Your task to perform on an android device: change notifications settings Image 0: 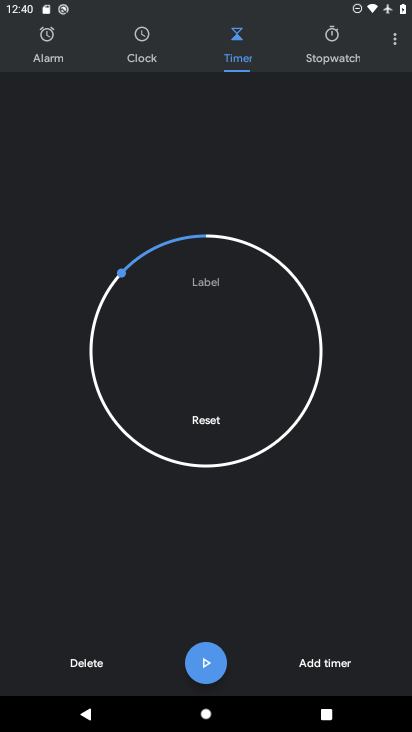
Step 0: press home button
Your task to perform on an android device: change notifications settings Image 1: 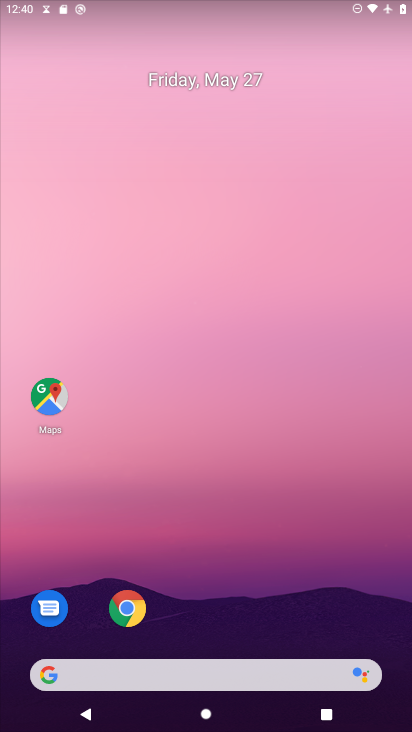
Step 1: drag from (203, 670) to (344, 88)
Your task to perform on an android device: change notifications settings Image 2: 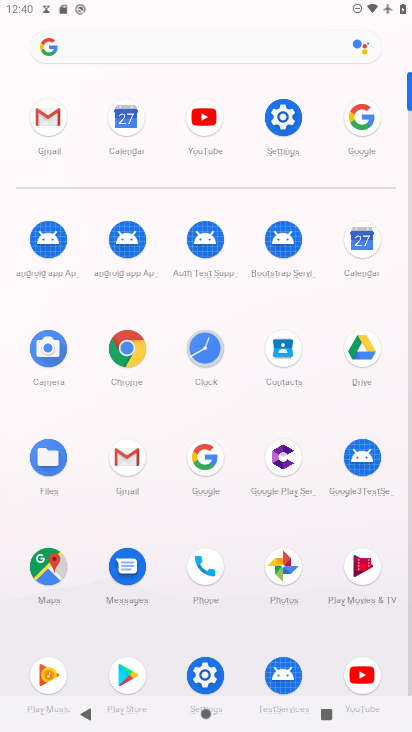
Step 2: click (284, 119)
Your task to perform on an android device: change notifications settings Image 3: 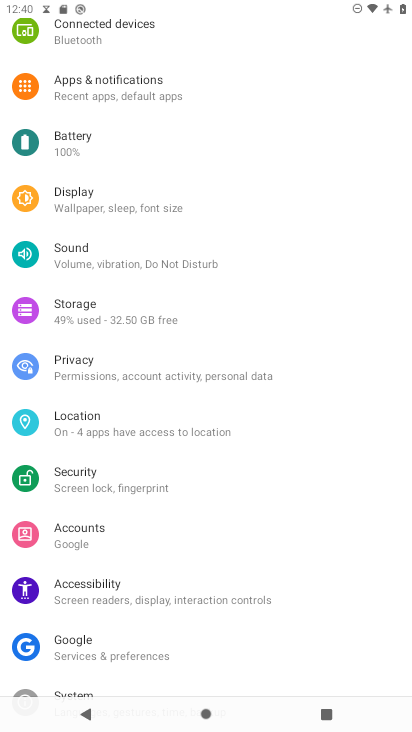
Step 3: click (151, 83)
Your task to perform on an android device: change notifications settings Image 4: 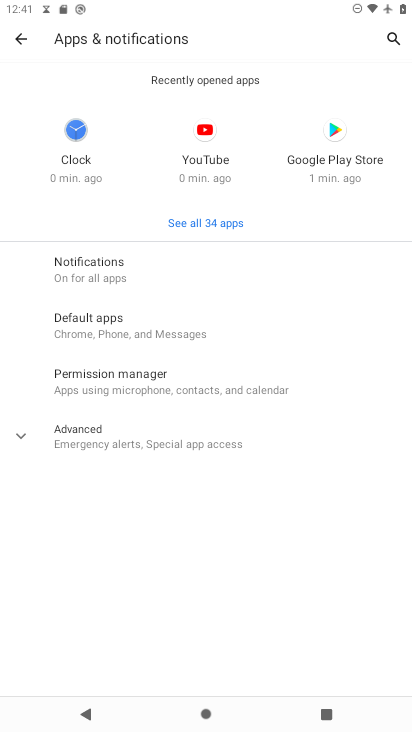
Step 4: click (118, 280)
Your task to perform on an android device: change notifications settings Image 5: 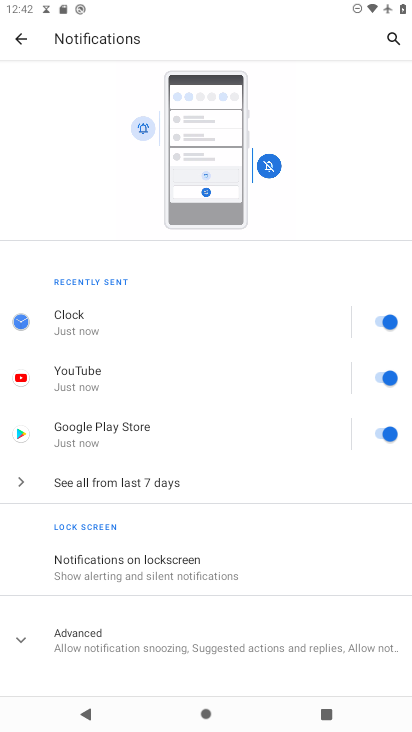
Step 5: task complete